Your task to perform on an android device: turn off priority inbox in the gmail app Image 0: 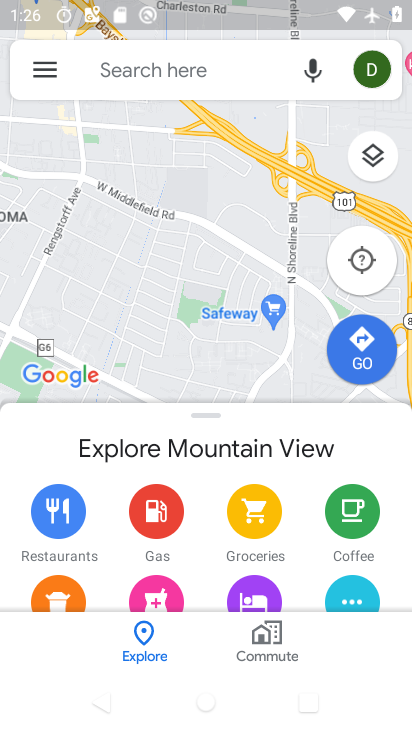
Step 0: press home button
Your task to perform on an android device: turn off priority inbox in the gmail app Image 1: 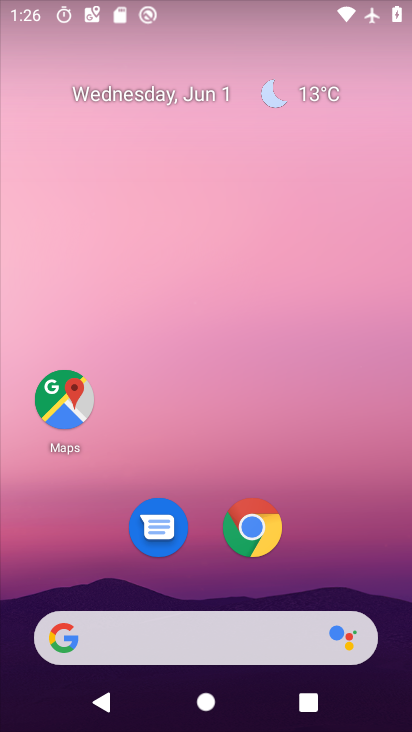
Step 1: drag from (347, 597) to (301, 14)
Your task to perform on an android device: turn off priority inbox in the gmail app Image 2: 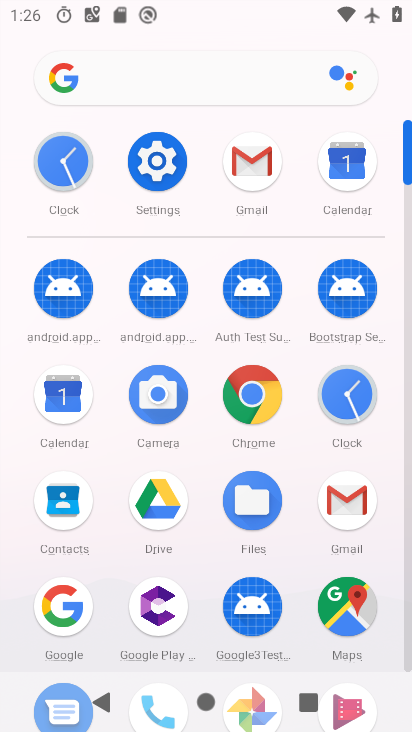
Step 2: click (251, 169)
Your task to perform on an android device: turn off priority inbox in the gmail app Image 3: 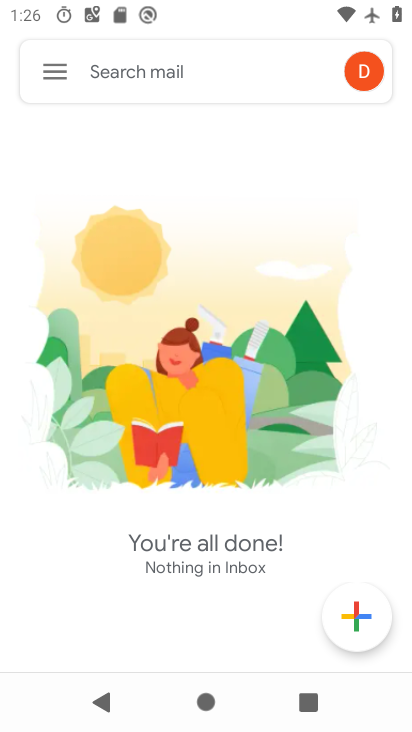
Step 3: click (48, 73)
Your task to perform on an android device: turn off priority inbox in the gmail app Image 4: 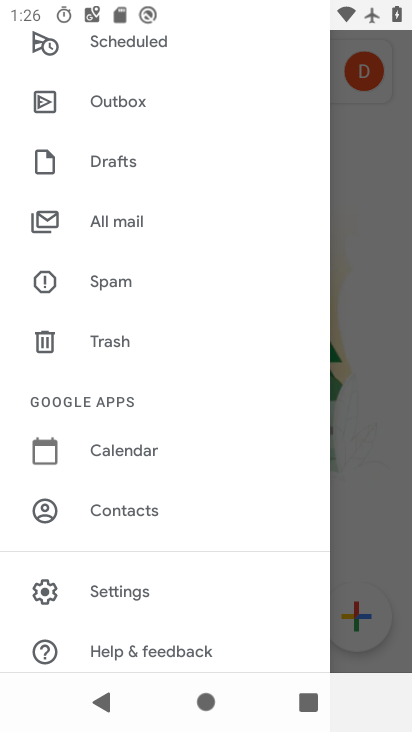
Step 4: click (131, 594)
Your task to perform on an android device: turn off priority inbox in the gmail app Image 5: 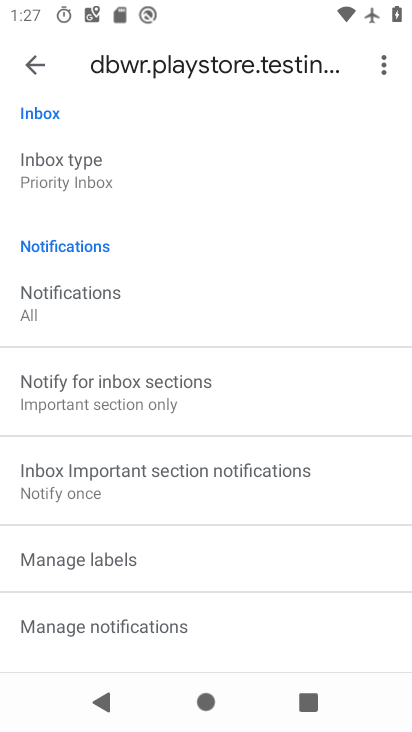
Step 5: click (77, 180)
Your task to perform on an android device: turn off priority inbox in the gmail app Image 6: 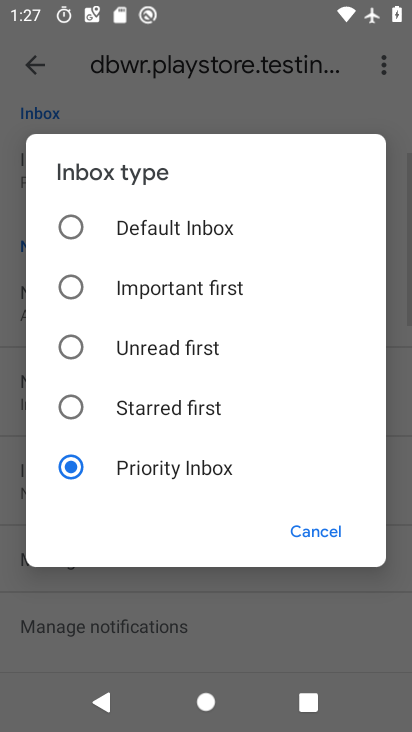
Step 6: click (70, 289)
Your task to perform on an android device: turn off priority inbox in the gmail app Image 7: 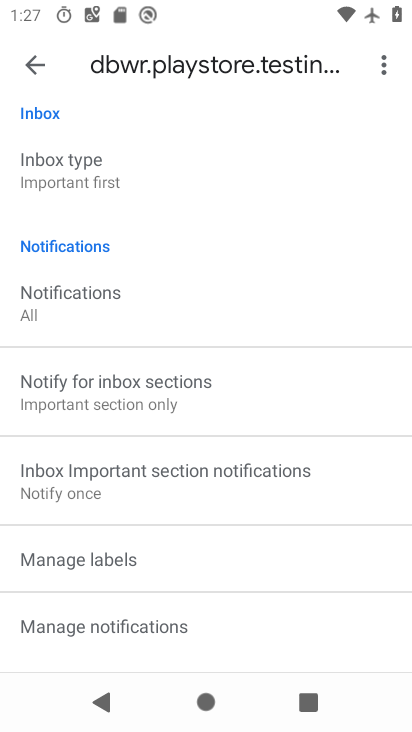
Step 7: task complete